Your task to perform on an android device: Open Wikipedia Image 0: 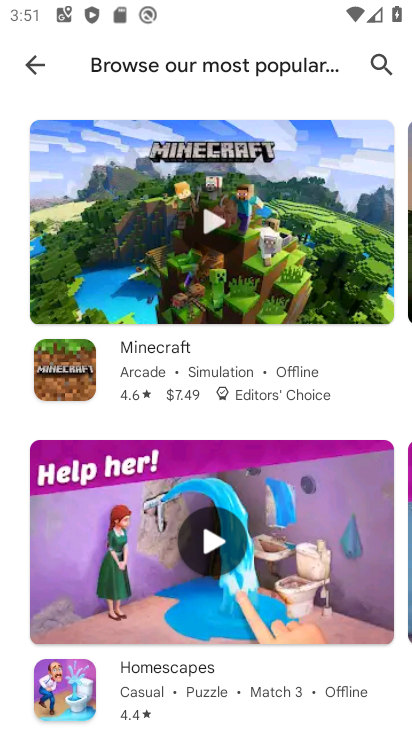
Step 0: press home button
Your task to perform on an android device: Open Wikipedia Image 1: 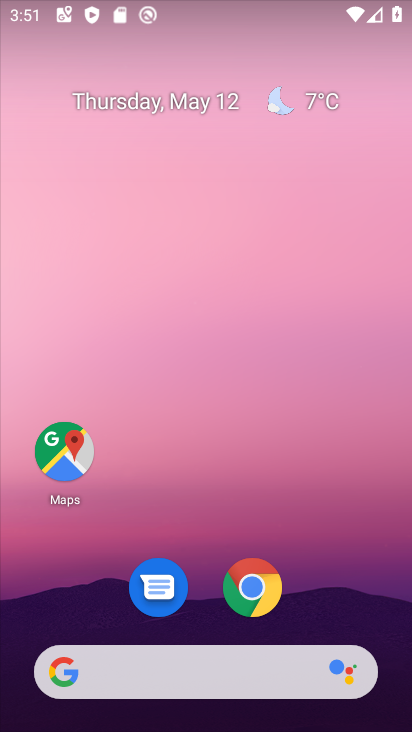
Step 1: click (260, 595)
Your task to perform on an android device: Open Wikipedia Image 2: 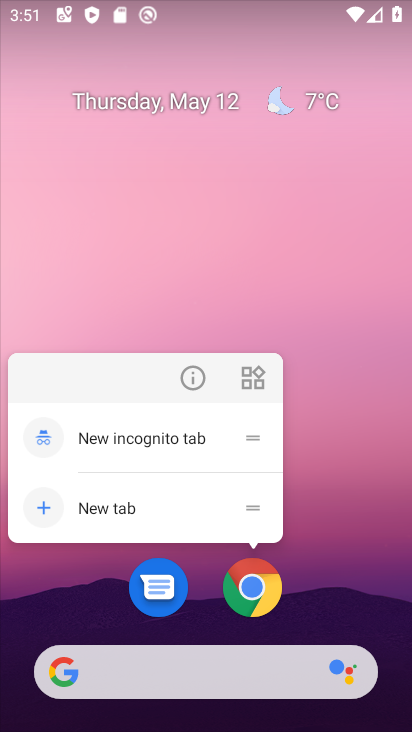
Step 2: click (261, 595)
Your task to perform on an android device: Open Wikipedia Image 3: 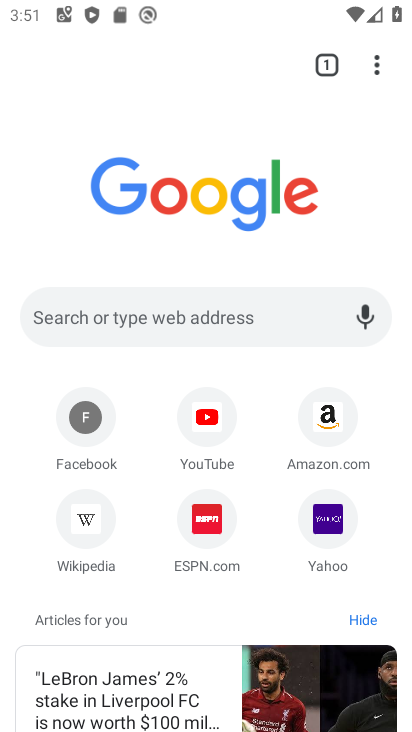
Step 3: click (84, 518)
Your task to perform on an android device: Open Wikipedia Image 4: 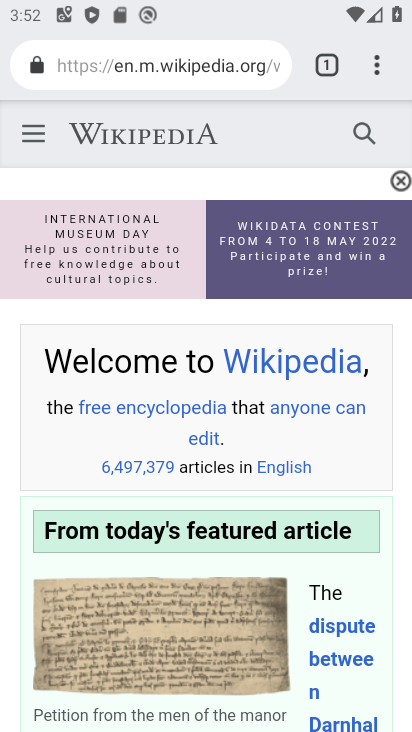
Step 4: task complete